Your task to perform on an android device: turn on airplane mode Image 0: 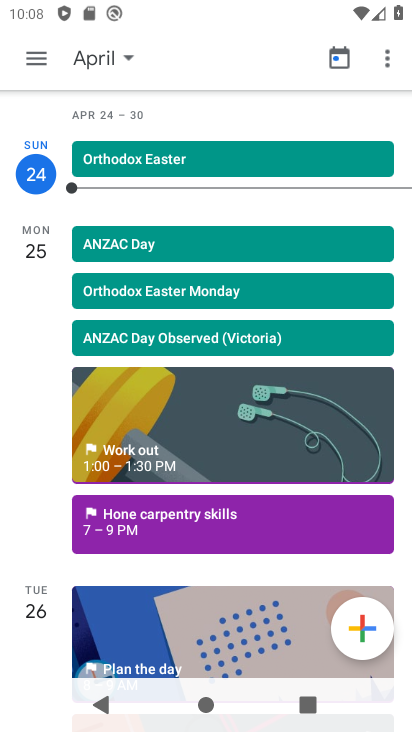
Step 0: press home button
Your task to perform on an android device: turn on airplane mode Image 1: 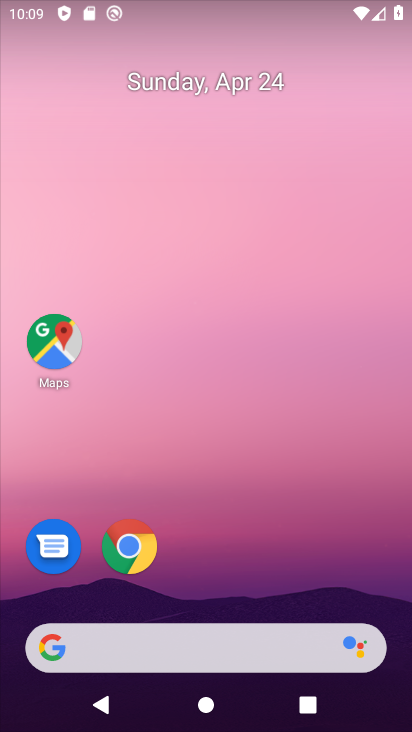
Step 1: drag from (315, 521) to (336, 42)
Your task to perform on an android device: turn on airplane mode Image 2: 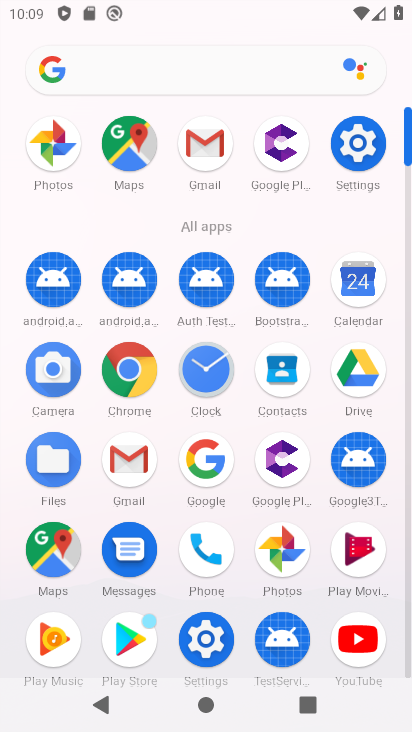
Step 2: click (357, 157)
Your task to perform on an android device: turn on airplane mode Image 3: 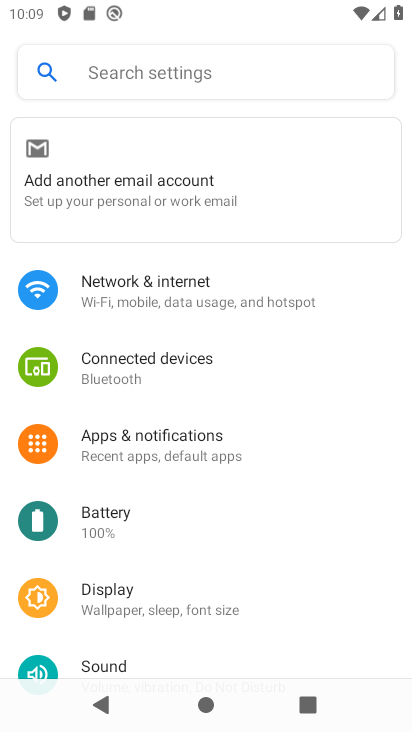
Step 3: click (122, 303)
Your task to perform on an android device: turn on airplane mode Image 4: 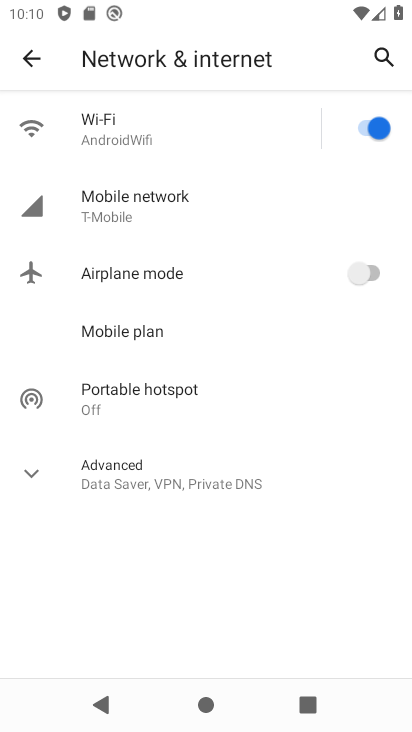
Step 4: click (371, 271)
Your task to perform on an android device: turn on airplane mode Image 5: 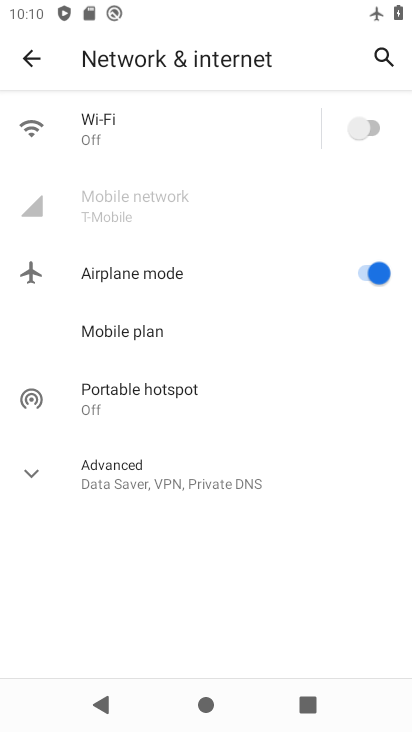
Step 5: task complete